Your task to perform on an android device: Open Google Image 0: 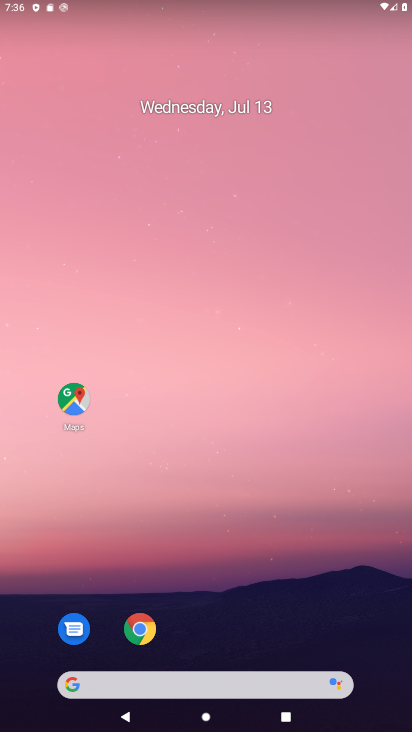
Step 0: drag from (303, 557) to (320, 7)
Your task to perform on an android device: Open Google Image 1: 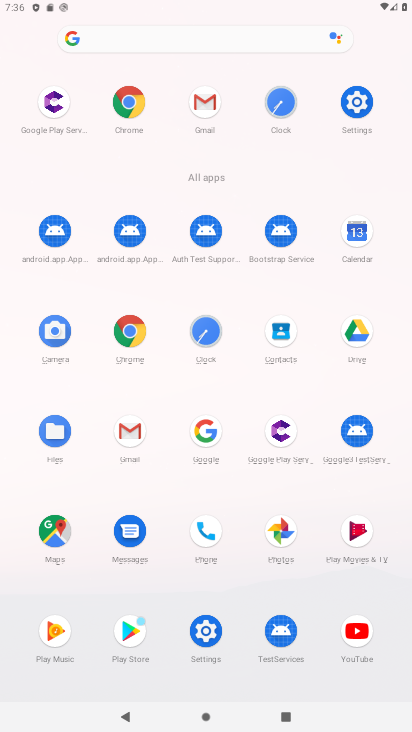
Step 1: click (216, 440)
Your task to perform on an android device: Open Google Image 2: 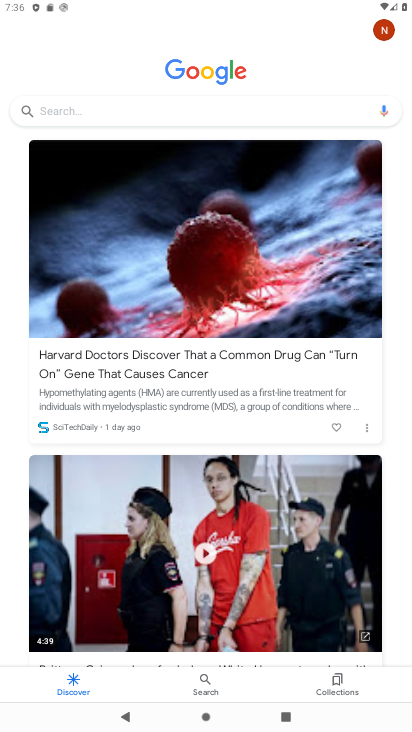
Step 2: task complete